Your task to perform on an android device: Open Google Image 0: 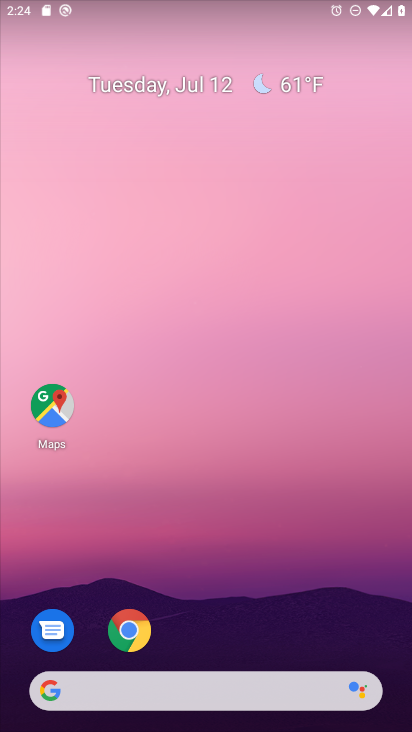
Step 0: drag from (217, 634) to (228, 233)
Your task to perform on an android device: Open Google Image 1: 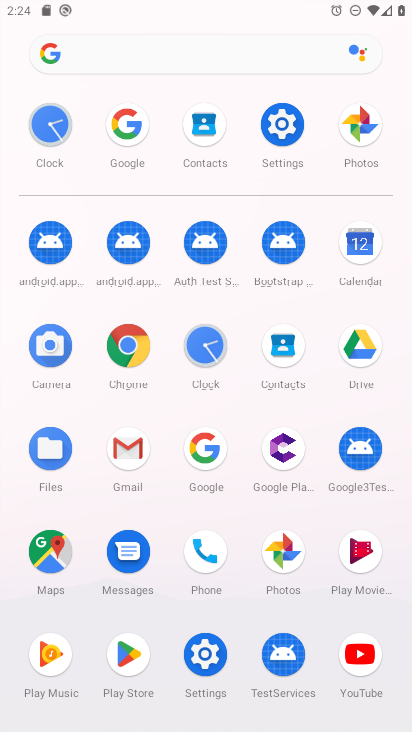
Step 1: click (120, 135)
Your task to perform on an android device: Open Google Image 2: 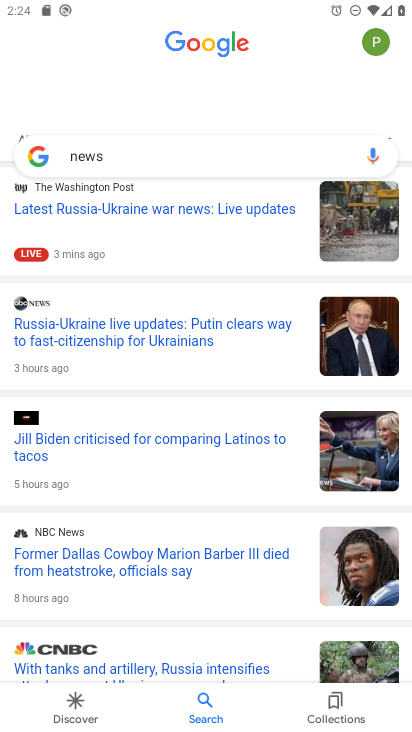
Step 2: task complete